Your task to perform on an android device: search for starred emails in the gmail app Image 0: 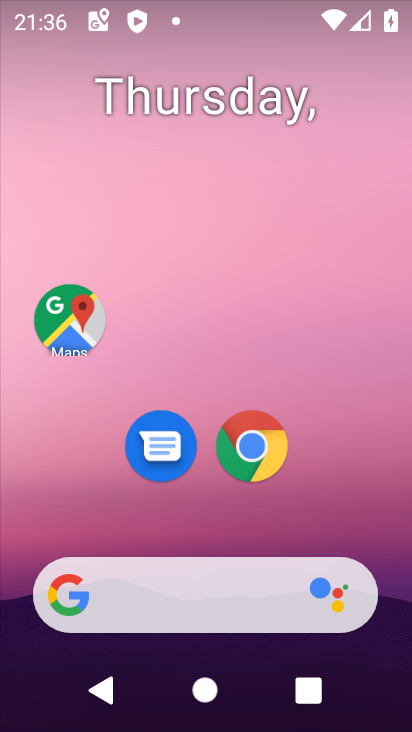
Step 0: drag from (254, 528) to (395, 213)
Your task to perform on an android device: search for starred emails in the gmail app Image 1: 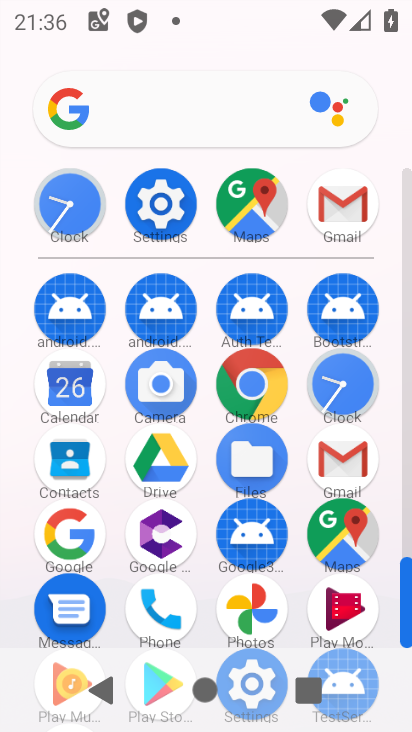
Step 1: click (328, 457)
Your task to perform on an android device: search for starred emails in the gmail app Image 2: 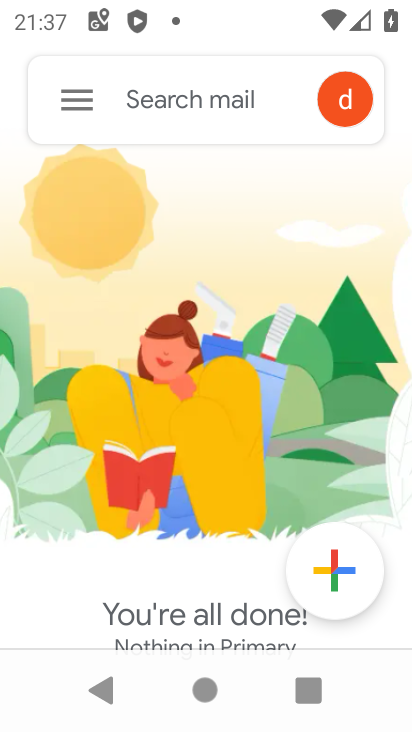
Step 2: click (75, 96)
Your task to perform on an android device: search for starred emails in the gmail app Image 3: 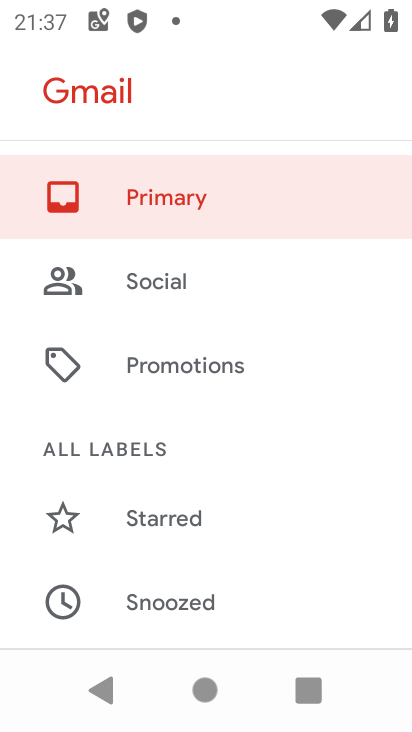
Step 3: click (108, 508)
Your task to perform on an android device: search for starred emails in the gmail app Image 4: 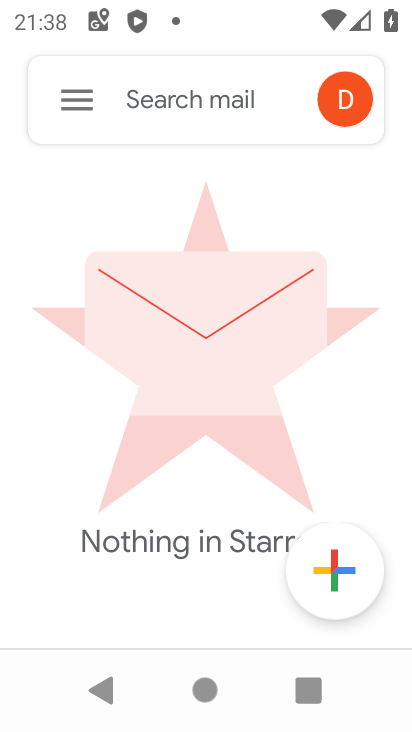
Step 4: task complete